Your task to perform on an android device: When is my next appointment? Image 0: 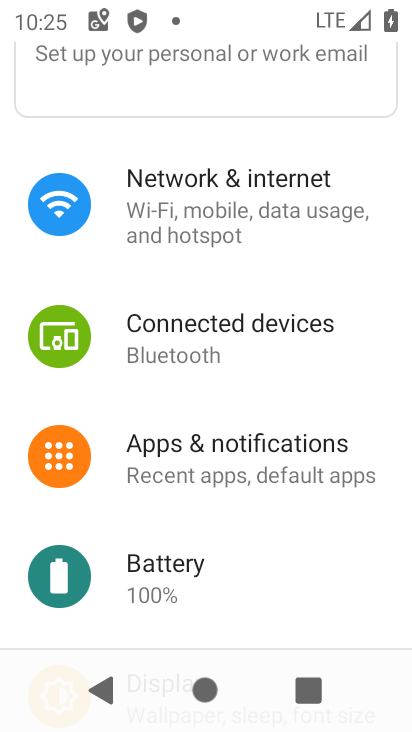
Step 0: press home button
Your task to perform on an android device: When is my next appointment? Image 1: 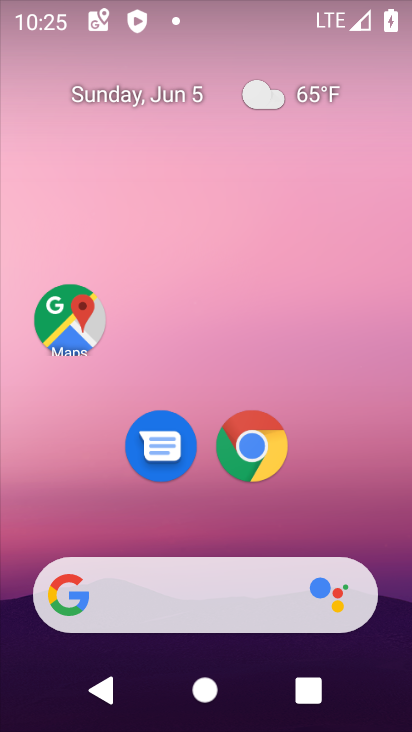
Step 1: drag from (213, 535) to (246, 131)
Your task to perform on an android device: When is my next appointment? Image 2: 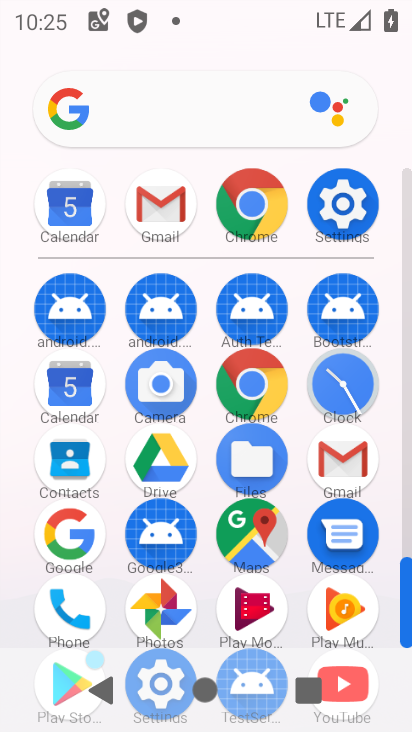
Step 2: drag from (221, 595) to (249, 268)
Your task to perform on an android device: When is my next appointment? Image 3: 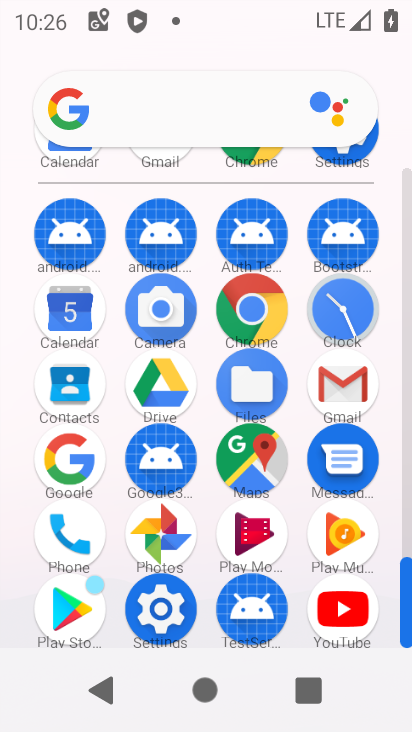
Step 3: drag from (206, 386) to (195, 535)
Your task to perform on an android device: When is my next appointment? Image 4: 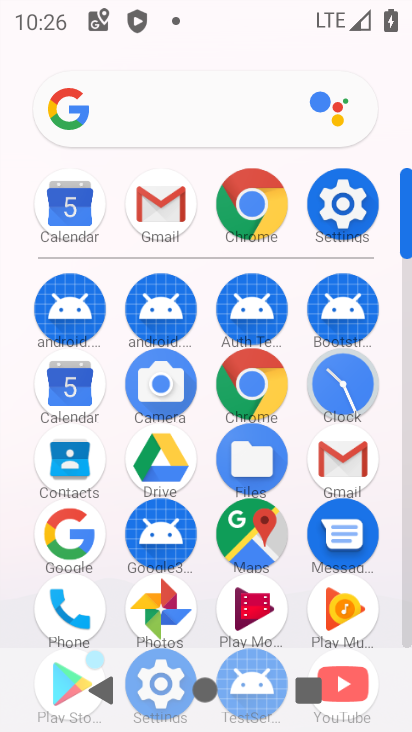
Step 4: click (68, 393)
Your task to perform on an android device: When is my next appointment? Image 5: 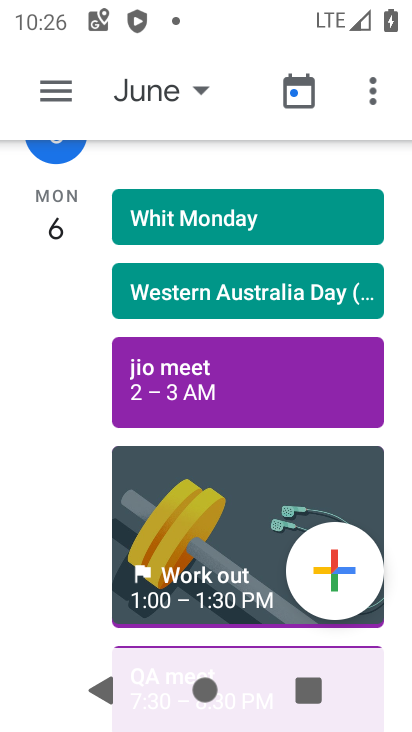
Step 5: task complete